Your task to perform on an android device: Add corsair k70 to the cart on amazon Image 0: 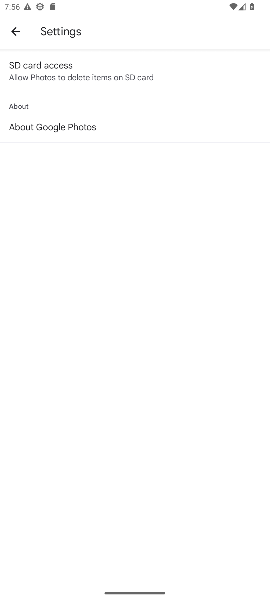
Step 0: press home button
Your task to perform on an android device: Add corsair k70 to the cart on amazon Image 1: 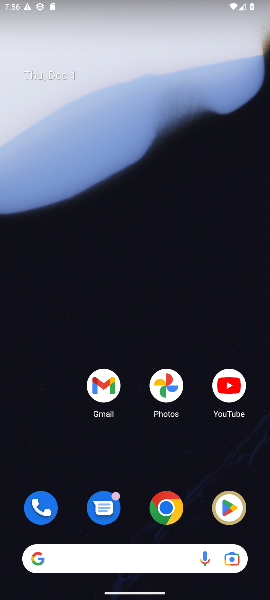
Step 1: click (169, 508)
Your task to perform on an android device: Add corsair k70 to the cart on amazon Image 2: 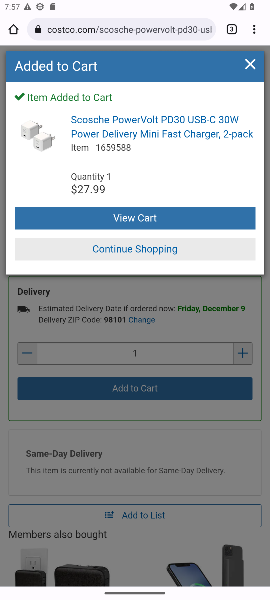
Step 2: click (231, 29)
Your task to perform on an android device: Add corsair k70 to the cart on amazon Image 3: 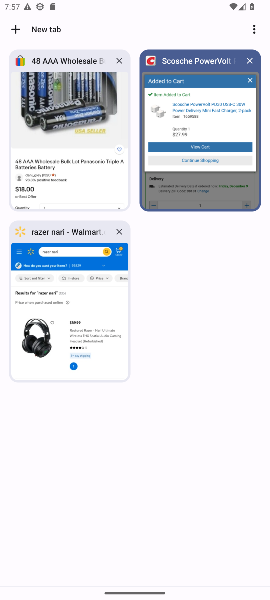
Step 3: click (49, 22)
Your task to perform on an android device: Add corsair k70 to the cart on amazon Image 4: 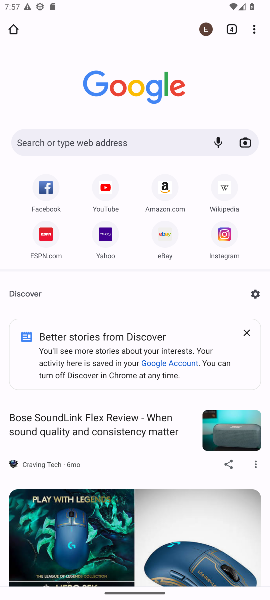
Step 4: click (161, 189)
Your task to perform on an android device: Add corsair k70 to the cart on amazon Image 5: 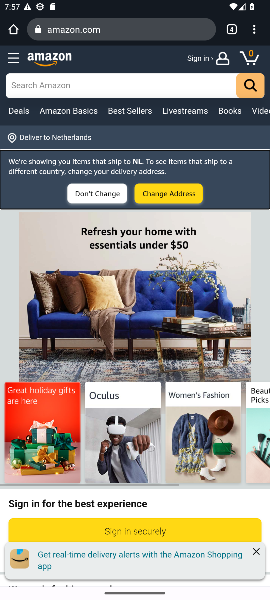
Step 5: click (92, 86)
Your task to perform on an android device: Add corsair k70 to the cart on amazon Image 6: 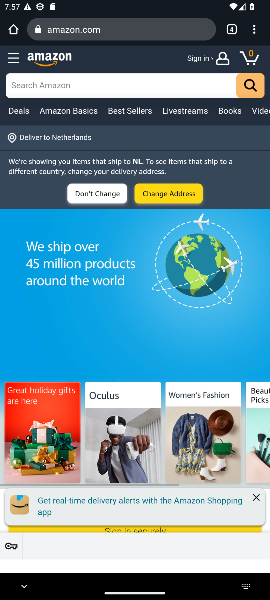
Step 6: type "corsair k70"
Your task to perform on an android device: Add corsair k70 to the cart on amazon Image 7: 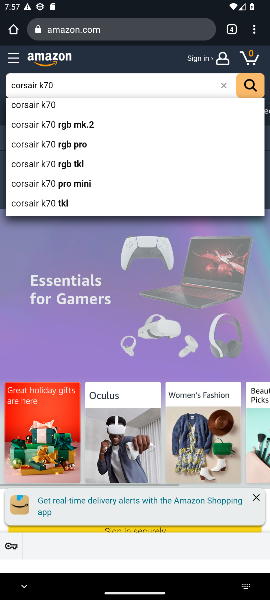
Step 7: click (50, 107)
Your task to perform on an android device: Add corsair k70 to the cart on amazon Image 8: 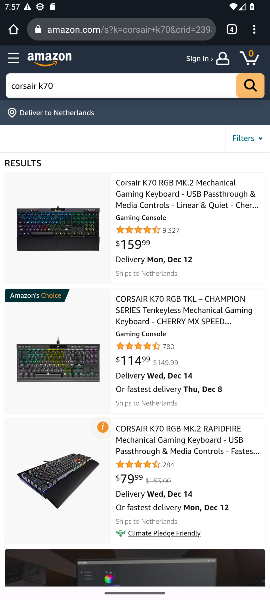
Step 8: click (149, 324)
Your task to perform on an android device: Add corsair k70 to the cart on amazon Image 9: 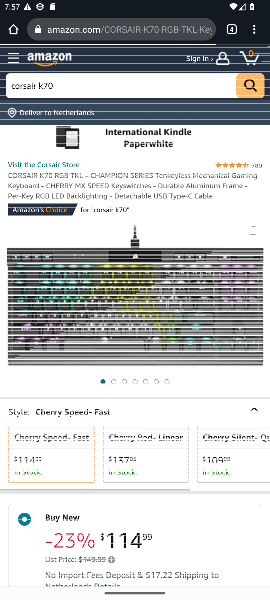
Step 9: drag from (185, 515) to (151, 209)
Your task to perform on an android device: Add corsair k70 to the cart on amazon Image 10: 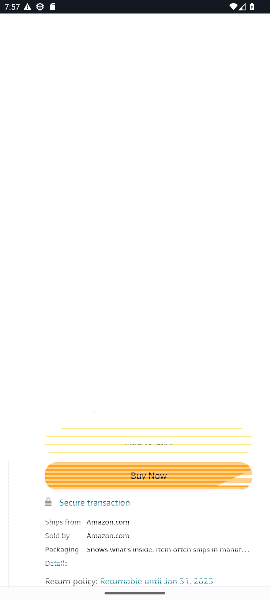
Step 10: click (141, 437)
Your task to perform on an android device: Add corsair k70 to the cart on amazon Image 11: 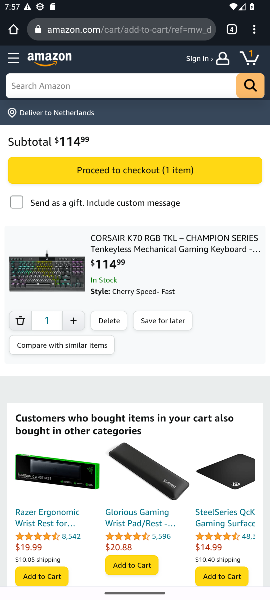
Step 11: task complete